Your task to perform on an android device: add a label to a message in the gmail app Image 0: 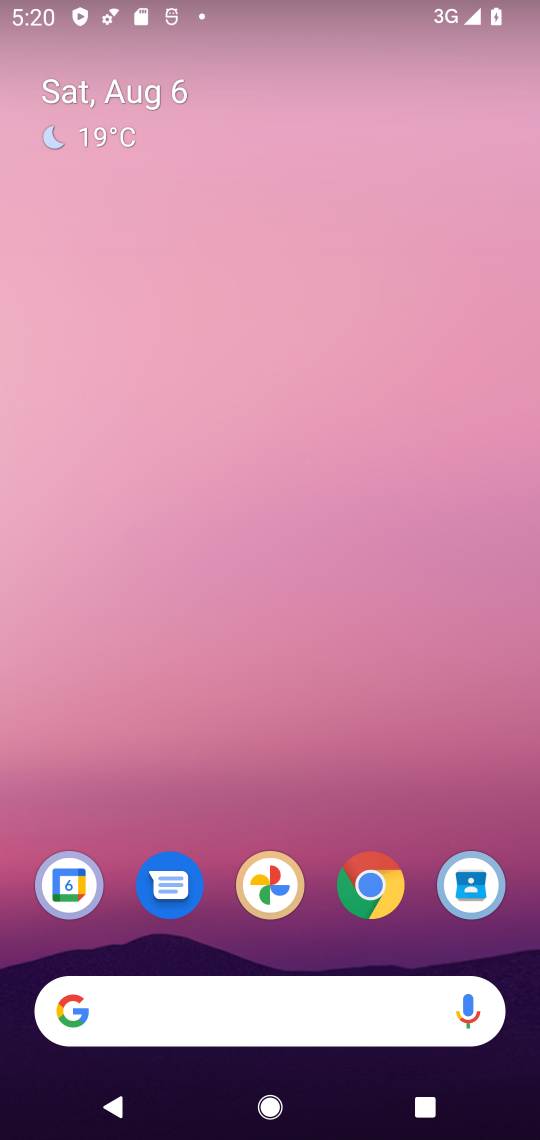
Step 0: drag from (424, 950) to (130, 34)
Your task to perform on an android device: add a label to a message in the gmail app Image 1: 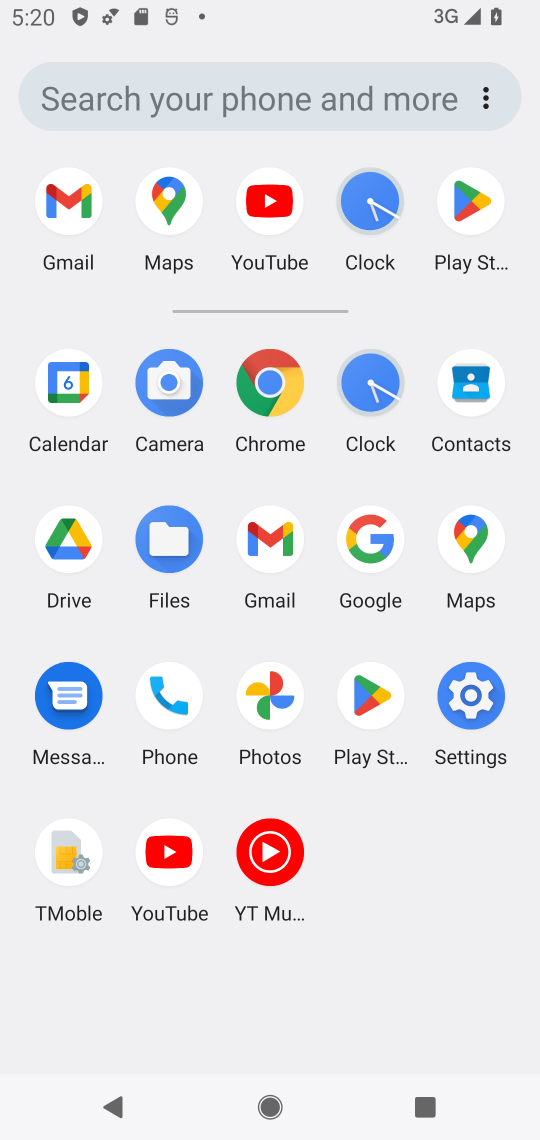
Step 1: click (271, 554)
Your task to perform on an android device: add a label to a message in the gmail app Image 2: 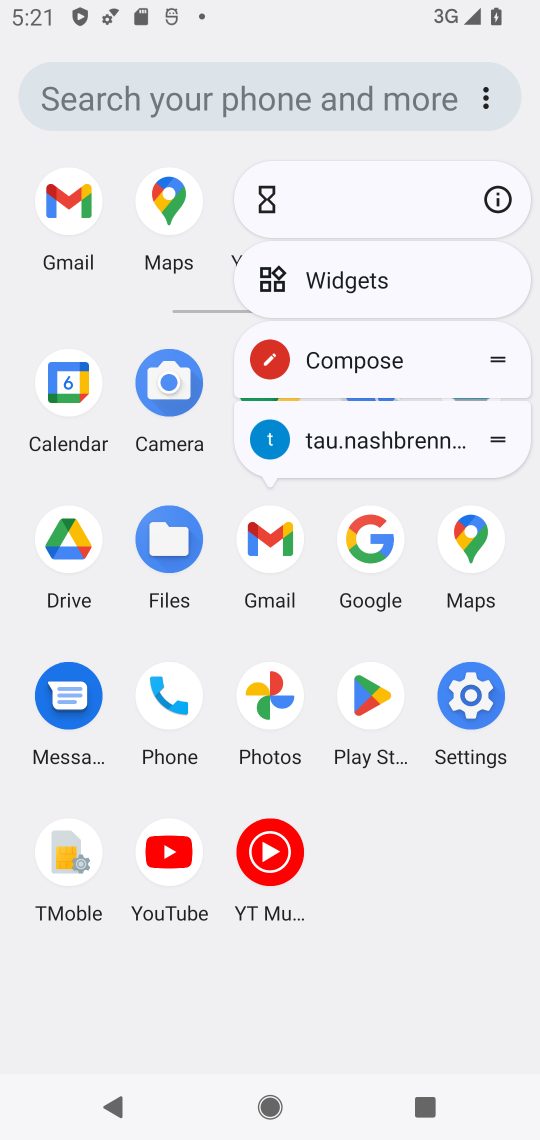
Step 2: click (281, 557)
Your task to perform on an android device: add a label to a message in the gmail app Image 3: 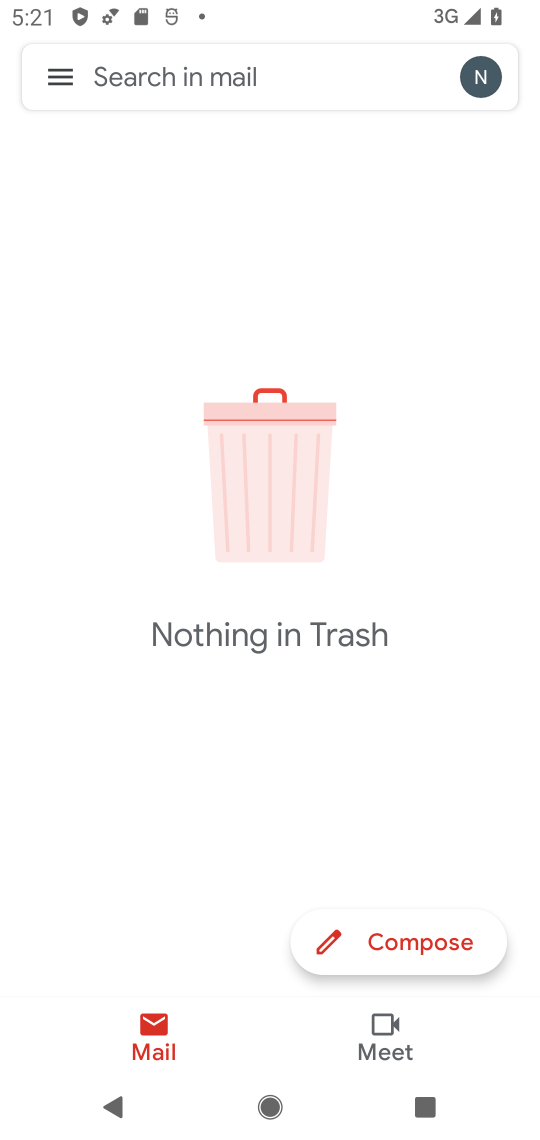
Step 3: task complete